Your task to perform on an android device: What's the weather going to be tomorrow? Image 0: 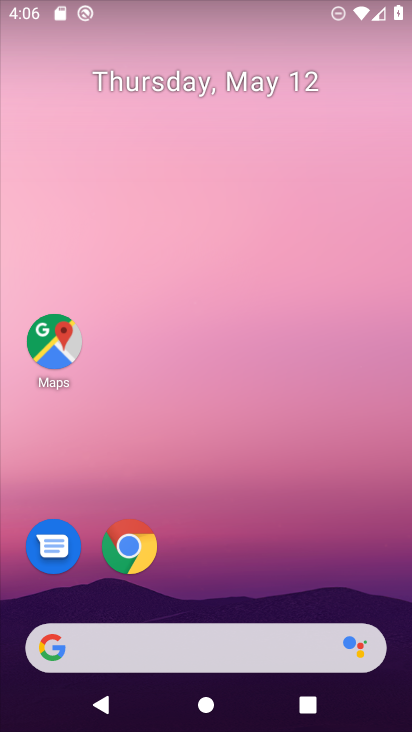
Step 0: drag from (260, 543) to (242, 278)
Your task to perform on an android device: What's the weather going to be tomorrow? Image 1: 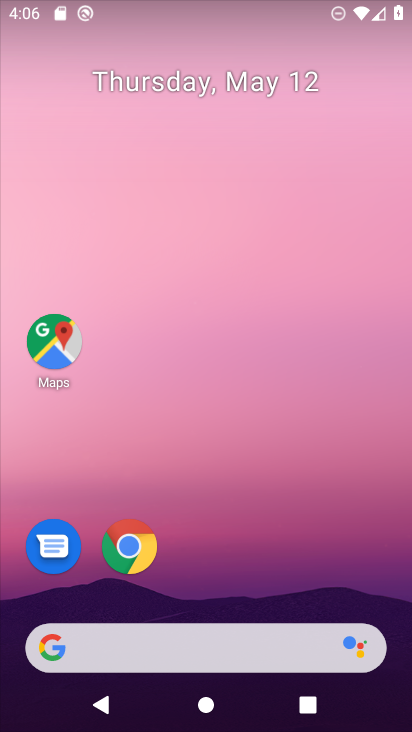
Step 1: click (246, 322)
Your task to perform on an android device: What's the weather going to be tomorrow? Image 2: 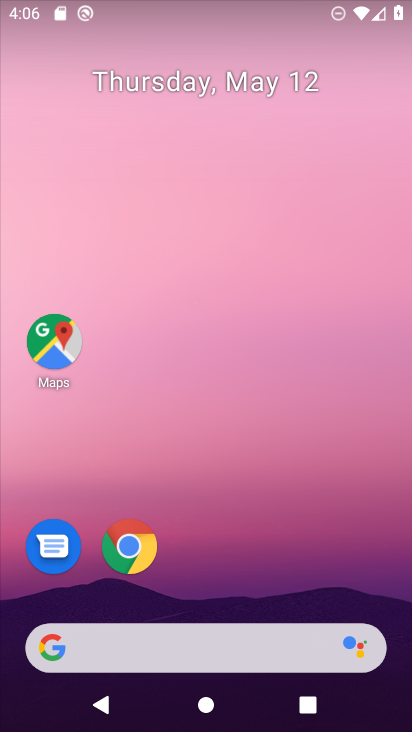
Step 2: drag from (204, 602) to (221, 320)
Your task to perform on an android device: What's the weather going to be tomorrow? Image 3: 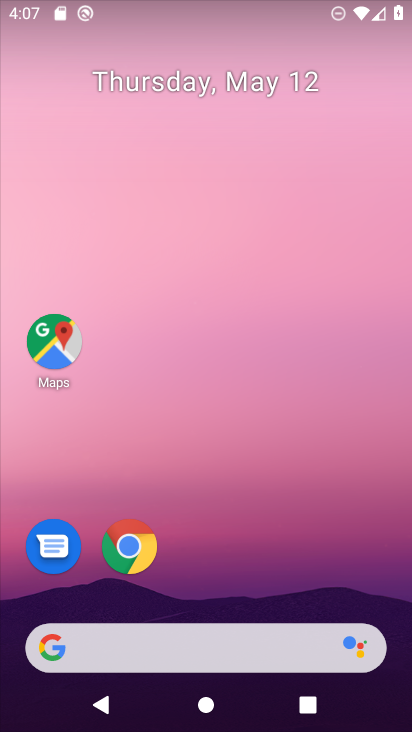
Step 3: drag from (293, 600) to (306, 249)
Your task to perform on an android device: What's the weather going to be tomorrow? Image 4: 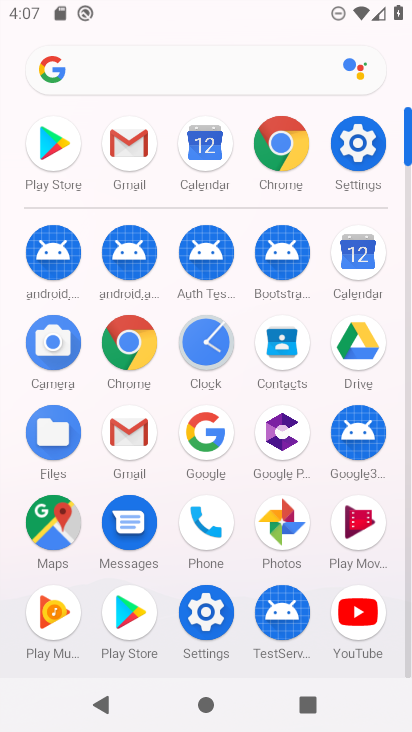
Step 4: click (265, 141)
Your task to perform on an android device: What's the weather going to be tomorrow? Image 5: 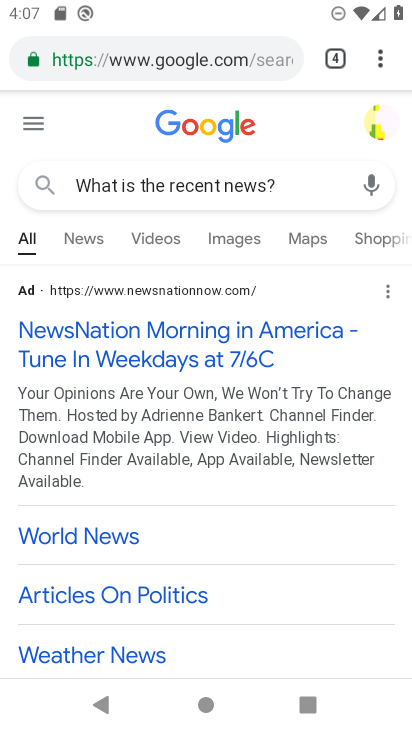
Step 5: click (376, 60)
Your task to perform on an android device: What's the weather going to be tomorrow? Image 6: 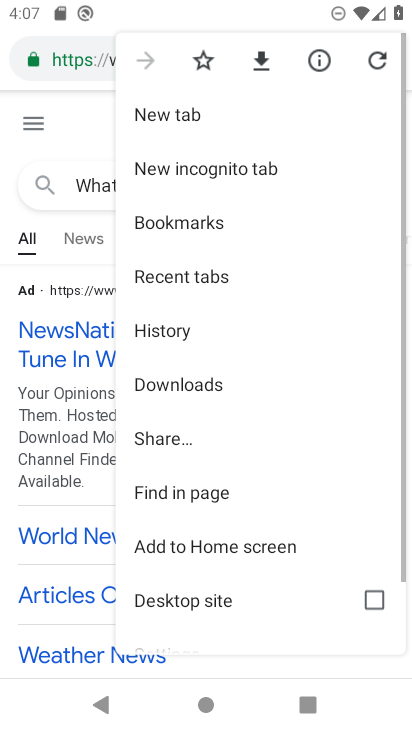
Step 6: click (186, 111)
Your task to perform on an android device: What's the weather going to be tomorrow? Image 7: 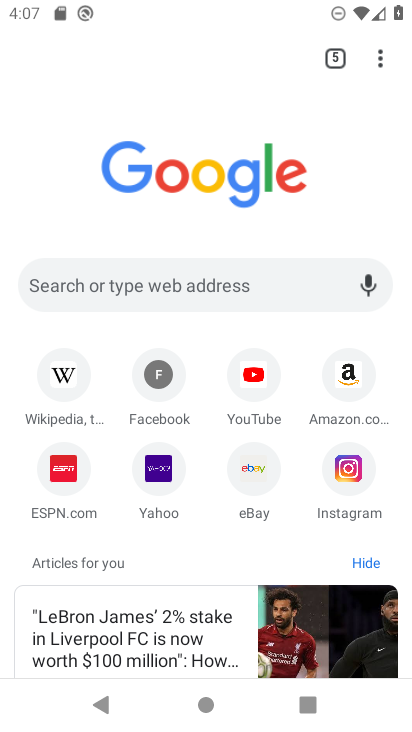
Step 7: click (237, 283)
Your task to perform on an android device: What's the weather going to be tomorrow? Image 8: 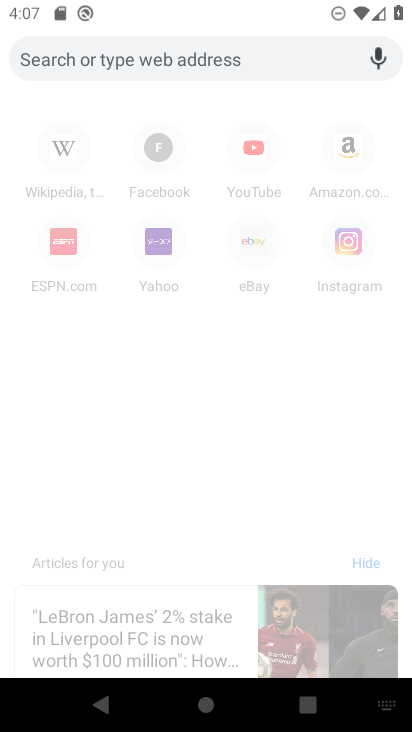
Step 8: type "What's the weather going to be tomorrow?"
Your task to perform on an android device: What's the weather going to be tomorrow? Image 9: 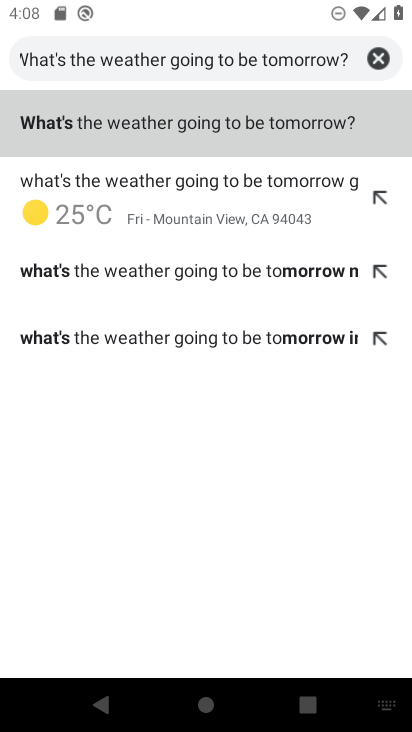
Step 9: click (201, 126)
Your task to perform on an android device: What's the weather going to be tomorrow? Image 10: 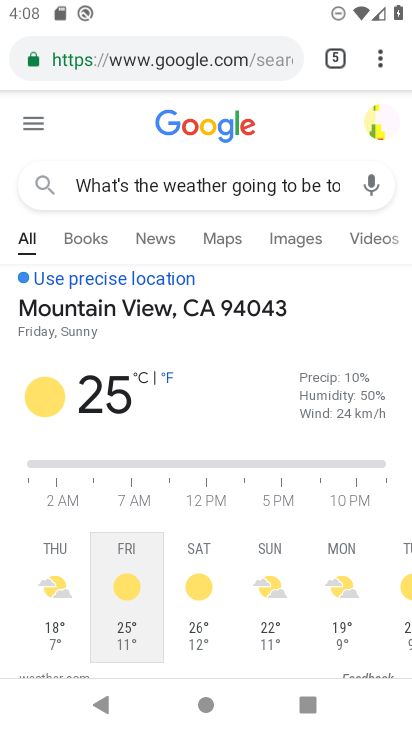
Step 10: task complete